Your task to perform on an android device: check battery use Image 0: 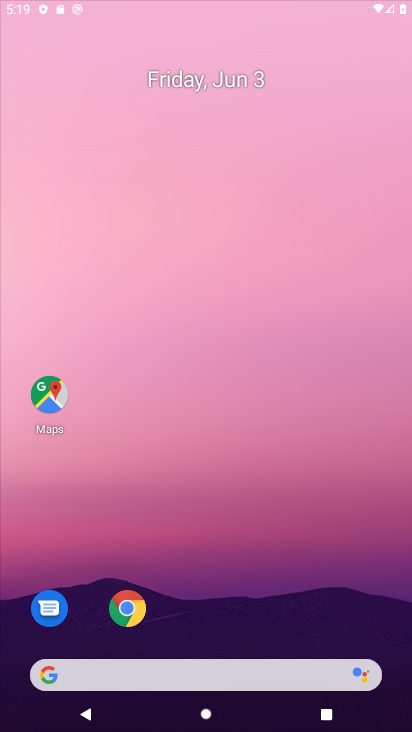
Step 0: click (140, 602)
Your task to perform on an android device: check battery use Image 1: 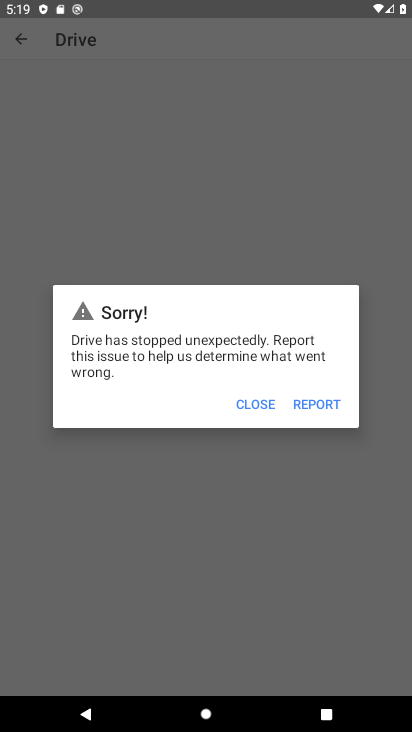
Step 1: press home button
Your task to perform on an android device: check battery use Image 2: 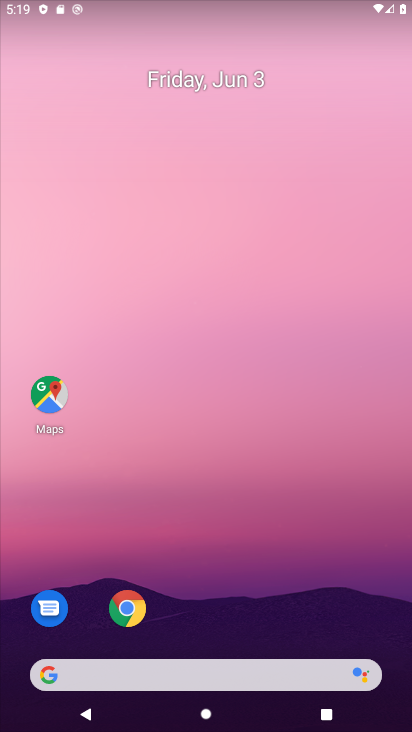
Step 2: drag from (242, 582) to (295, 159)
Your task to perform on an android device: check battery use Image 3: 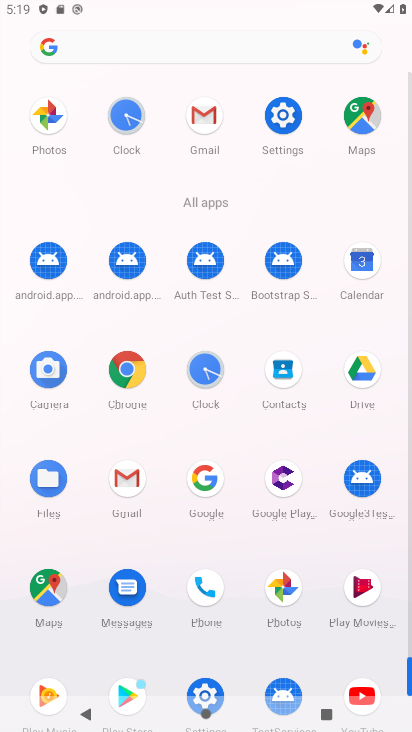
Step 3: click (287, 109)
Your task to perform on an android device: check battery use Image 4: 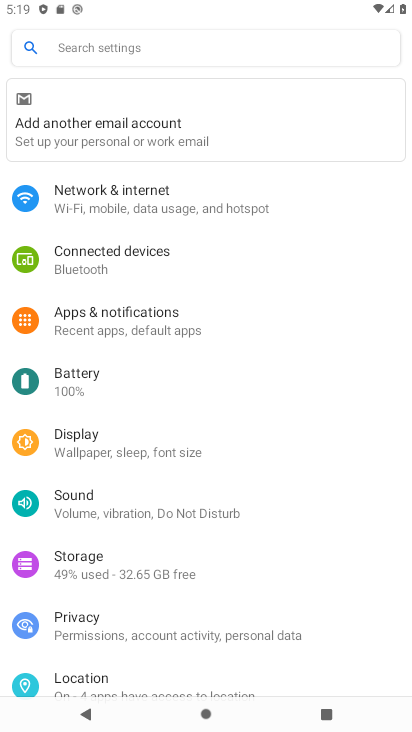
Step 4: click (112, 391)
Your task to perform on an android device: check battery use Image 5: 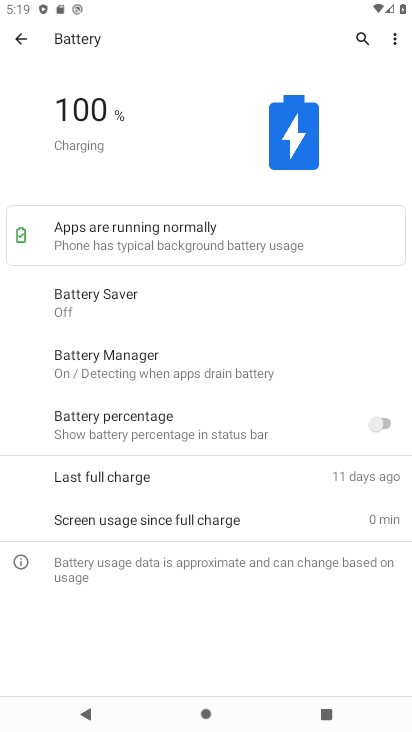
Step 5: task complete